Your task to perform on an android device: open sync settings in chrome Image 0: 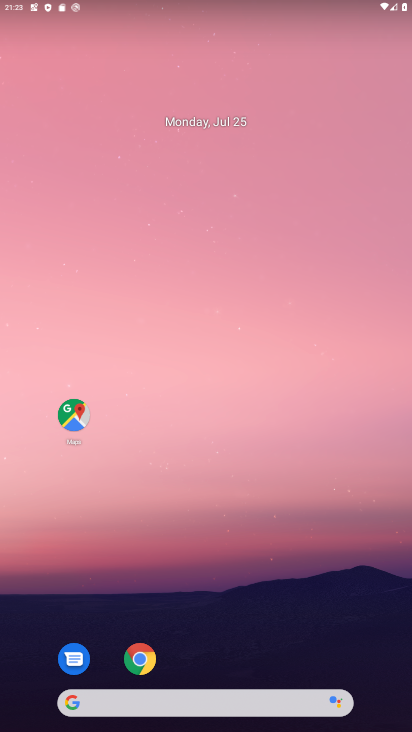
Step 0: click (158, 667)
Your task to perform on an android device: open sync settings in chrome Image 1: 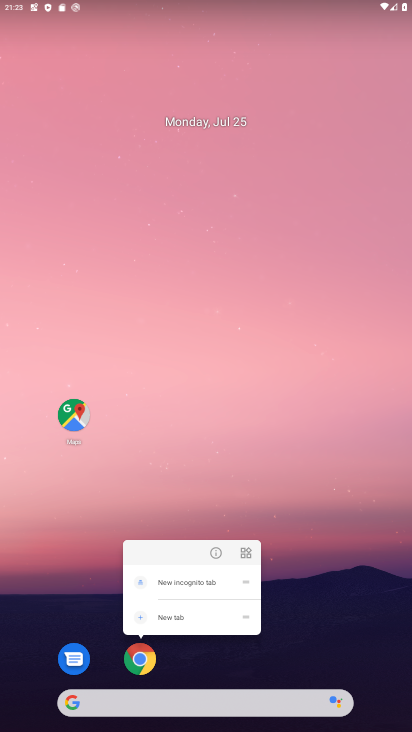
Step 1: click (158, 667)
Your task to perform on an android device: open sync settings in chrome Image 2: 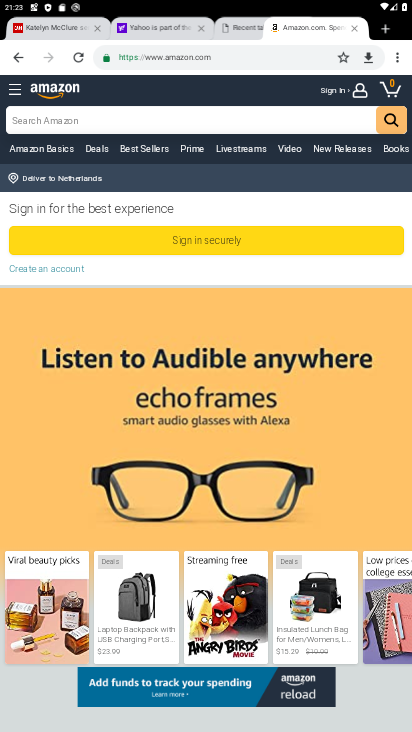
Step 2: click (403, 53)
Your task to perform on an android device: open sync settings in chrome Image 3: 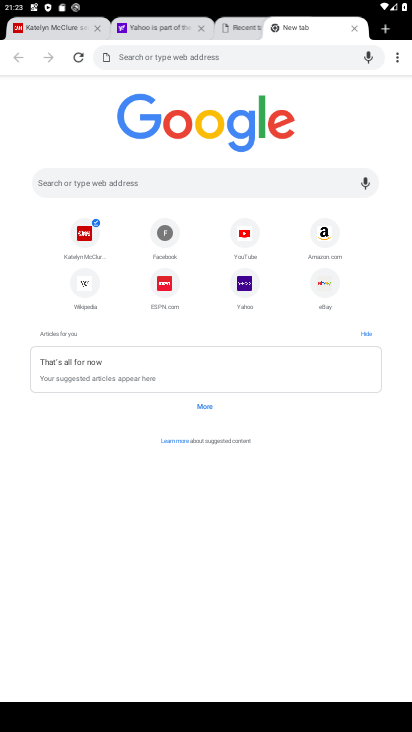
Step 3: click (375, 72)
Your task to perform on an android device: open sync settings in chrome Image 4: 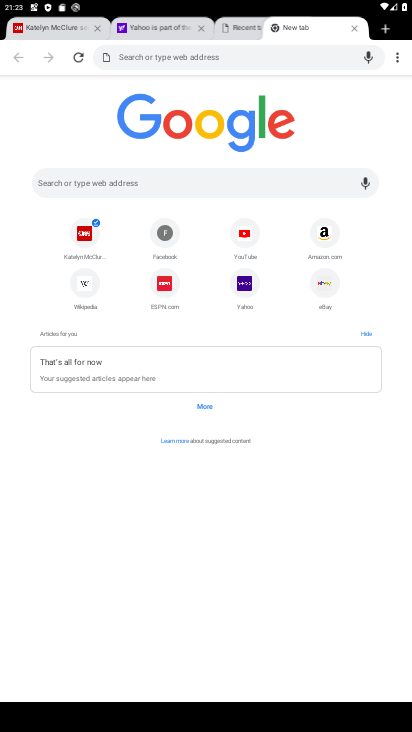
Step 4: drag from (401, 52) to (330, 271)
Your task to perform on an android device: open sync settings in chrome Image 5: 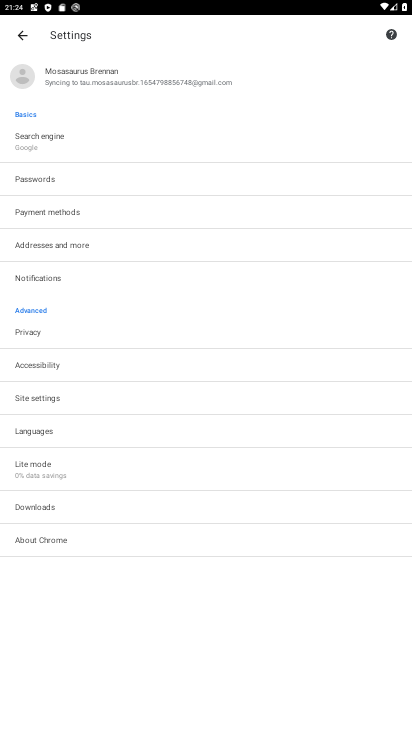
Step 5: click (107, 73)
Your task to perform on an android device: open sync settings in chrome Image 6: 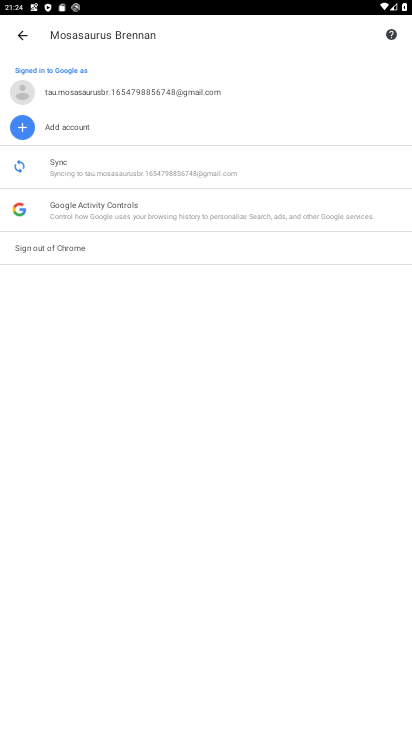
Step 6: click (184, 162)
Your task to perform on an android device: open sync settings in chrome Image 7: 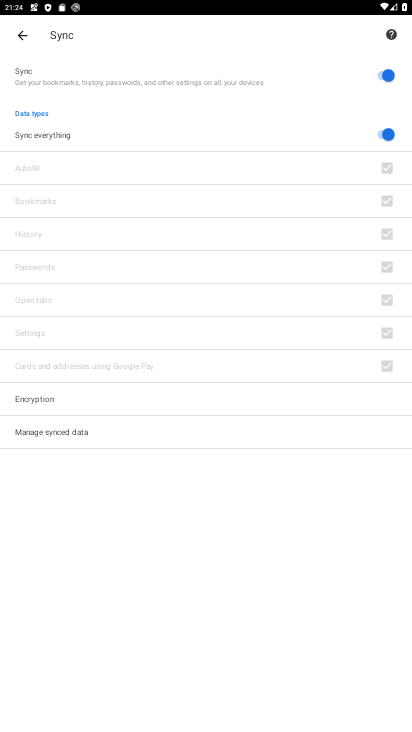
Step 7: task complete